Your task to perform on an android device: change the clock display to analog Image 0: 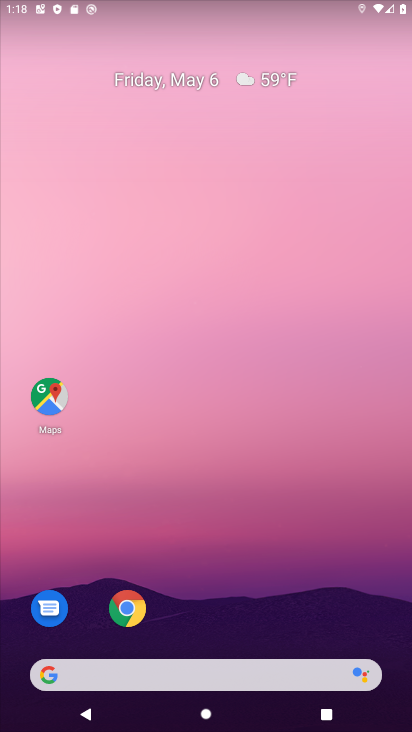
Step 0: drag from (240, 588) to (258, 210)
Your task to perform on an android device: change the clock display to analog Image 1: 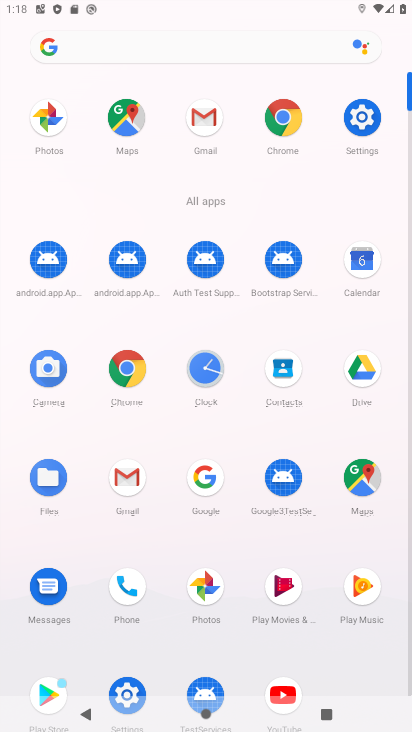
Step 1: click (188, 367)
Your task to perform on an android device: change the clock display to analog Image 2: 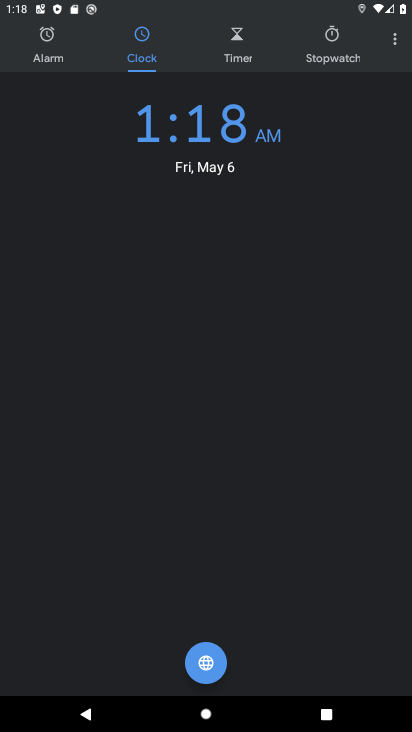
Step 2: click (394, 41)
Your task to perform on an android device: change the clock display to analog Image 3: 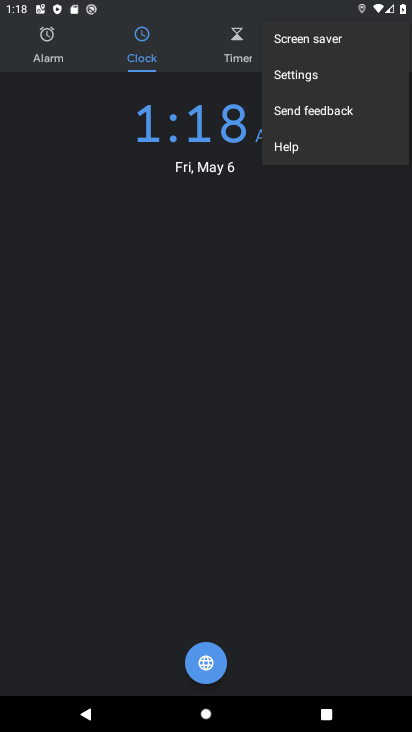
Step 3: click (321, 83)
Your task to perform on an android device: change the clock display to analog Image 4: 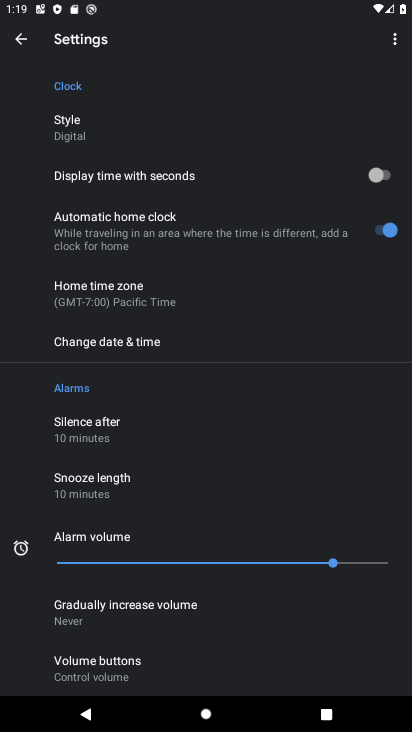
Step 4: click (96, 118)
Your task to perform on an android device: change the clock display to analog Image 5: 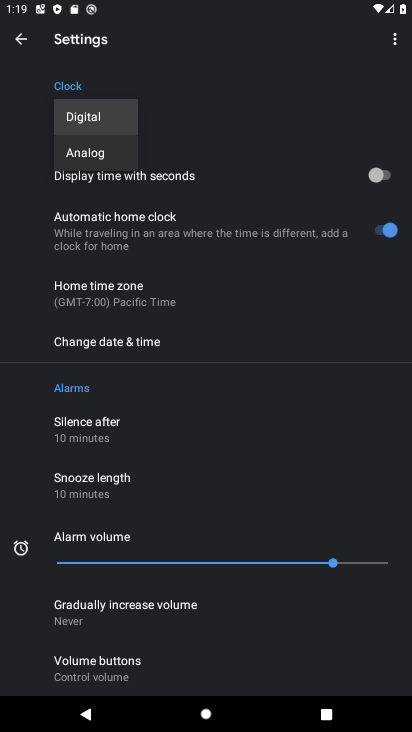
Step 5: click (109, 160)
Your task to perform on an android device: change the clock display to analog Image 6: 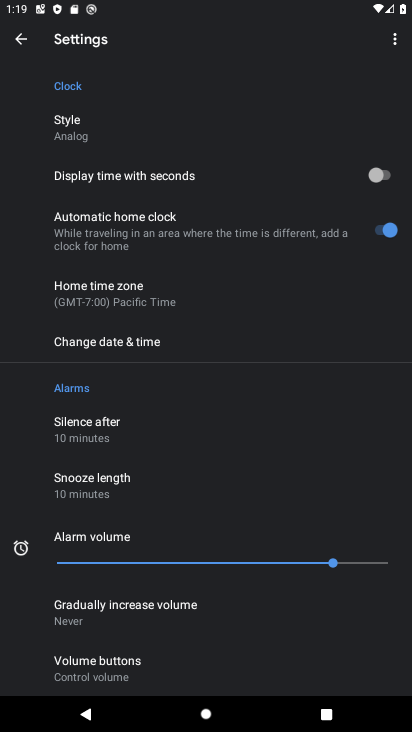
Step 6: task complete